Your task to perform on an android device: turn off smart reply in the gmail app Image 0: 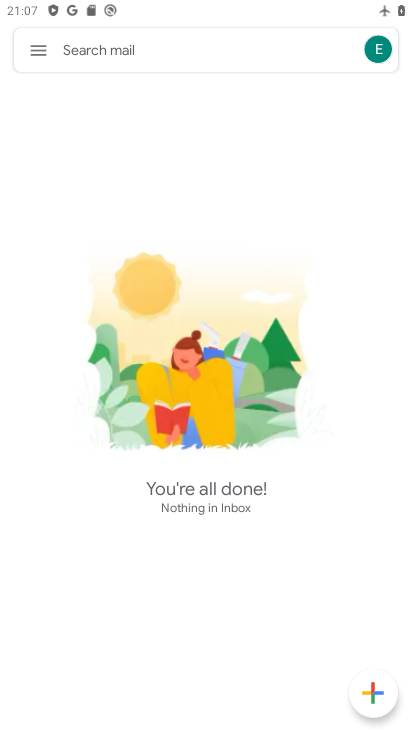
Step 0: click (37, 52)
Your task to perform on an android device: turn off smart reply in the gmail app Image 1: 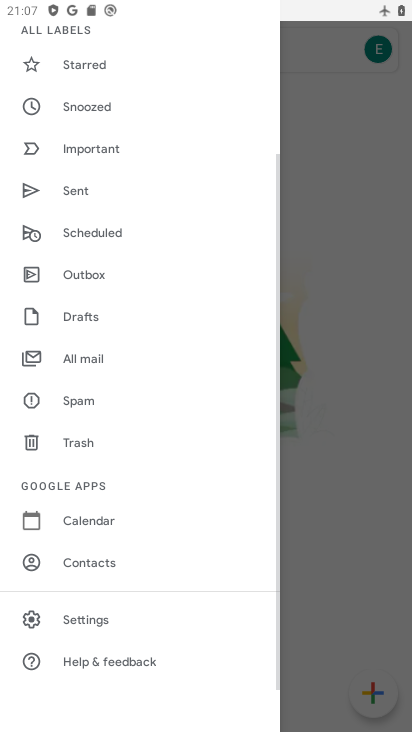
Step 1: click (80, 620)
Your task to perform on an android device: turn off smart reply in the gmail app Image 2: 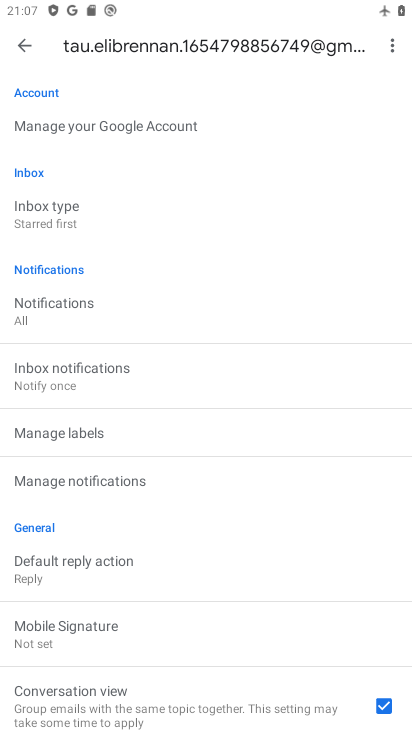
Step 2: drag from (107, 620) to (120, 190)
Your task to perform on an android device: turn off smart reply in the gmail app Image 3: 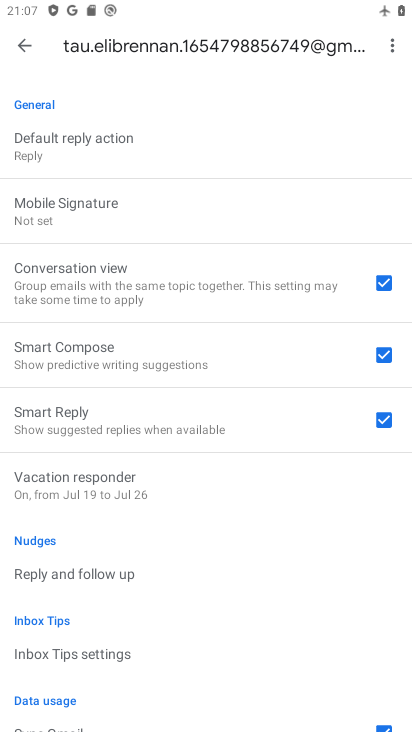
Step 3: click (386, 414)
Your task to perform on an android device: turn off smart reply in the gmail app Image 4: 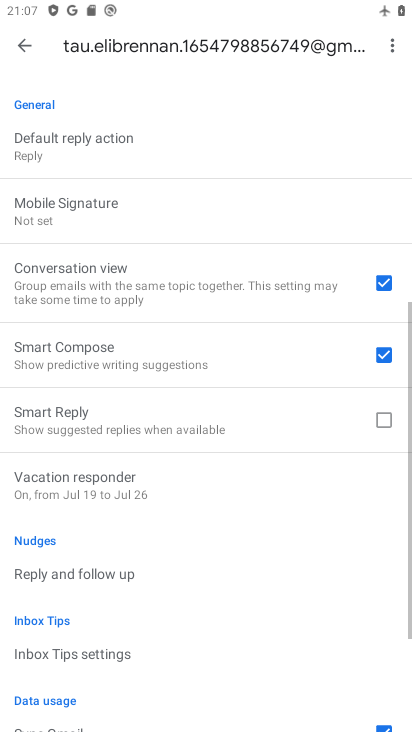
Step 4: task complete